Your task to perform on an android device: find which apps use the phone's location Image 0: 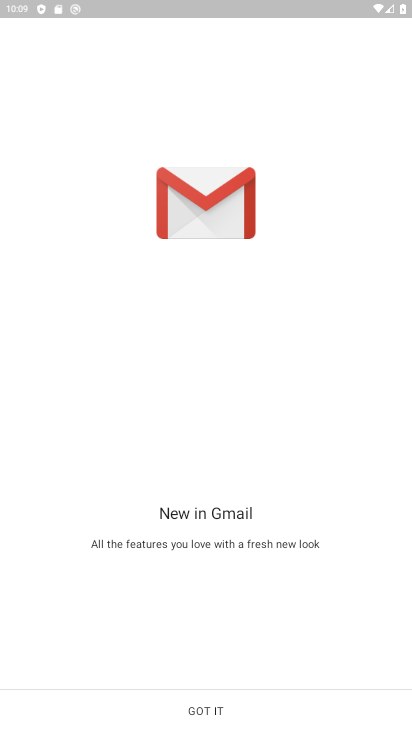
Step 0: press home button
Your task to perform on an android device: find which apps use the phone's location Image 1: 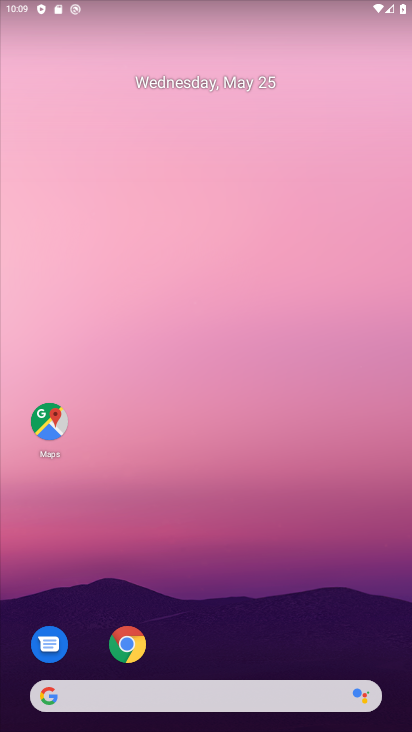
Step 1: drag from (183, 546) to (196, 33)
Your task to perform on an android device: find which apps use the phone's location Image 2: 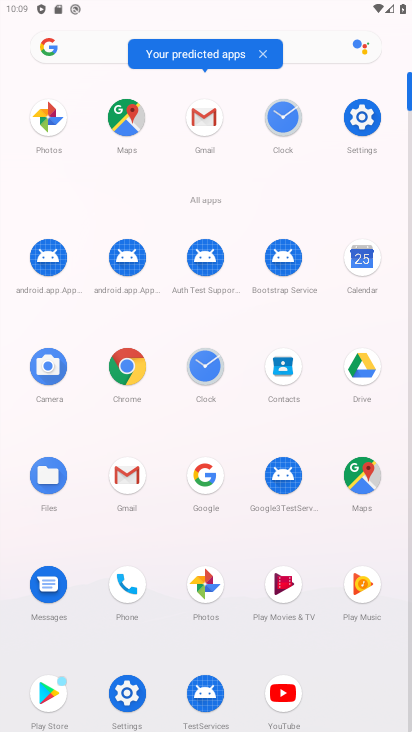
Step 2: click (363, 117)
Your task to perform on an android device: find which apps use the phone's location Image 3: 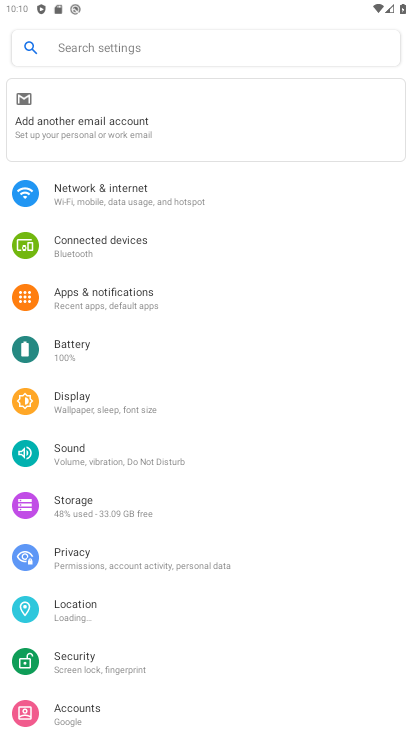
Step 3: click (70, 600)
Your task to perform on an android device: find which apps use the phone's location Image 4: 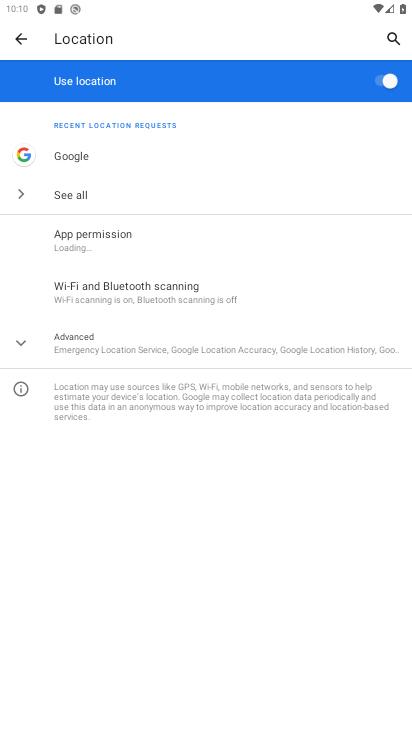
Step 4: click (50, 195)
Your task to perform on an android device: find which apps use the phone's location Image 5: 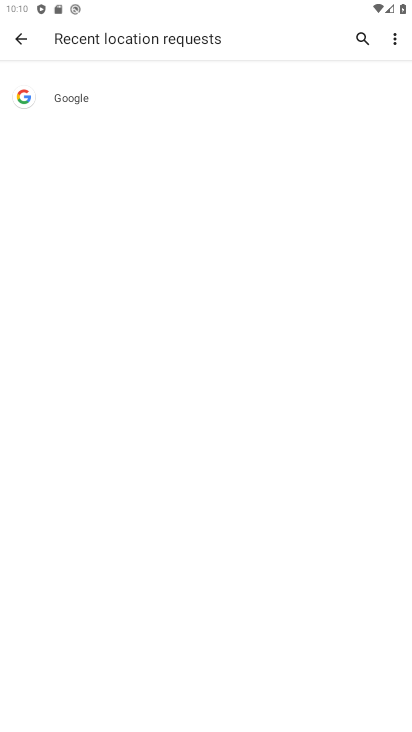
Step 5: task complete